Your task to perform on an android device: turn off picture-in-picture Image 0: 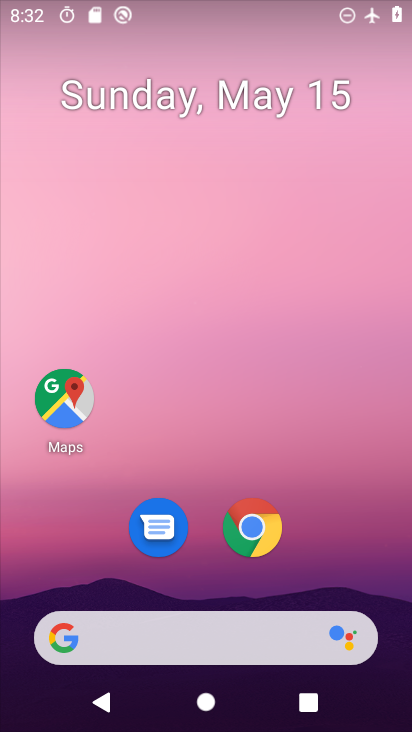
Step 0: click (250, 535)
Your task to perform on an android device: turn off picture-in-picture Image 1: 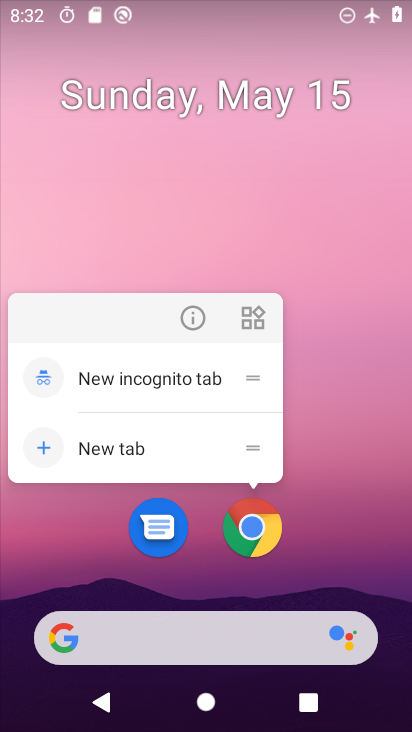
Step 1: click (194, 319)
Your task to perform on an android device: turn off picture-in-picture Image 2: 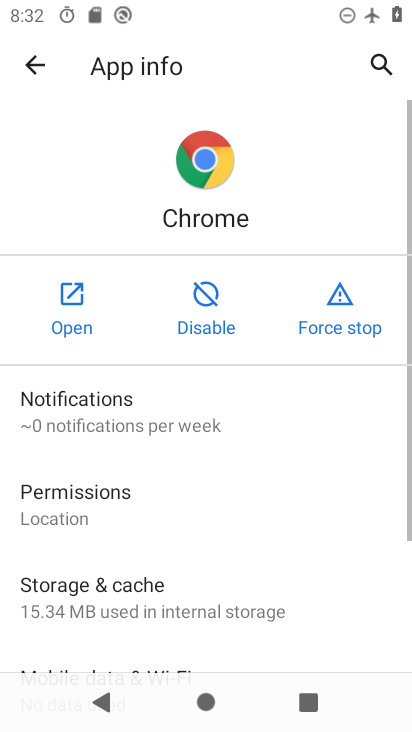
Step 2: drag from (171, 614) to (195, 180)
Your task to perform on an android device: turn off picture-in-picture Image 3: 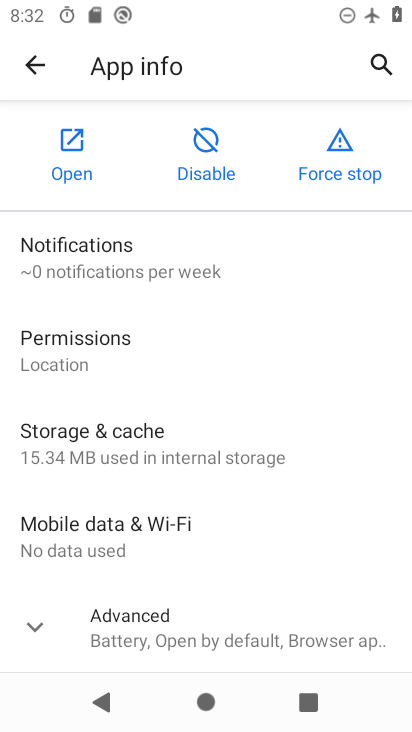
Step 3: drag from (173, 601) to (198, 364)
Your task to perform on an android device: turn off picture-in-picture Image 4: 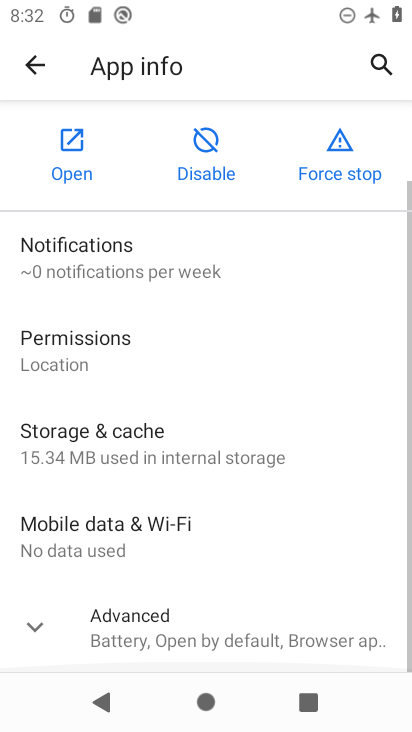
Step 4: click (133, 654)
Your task to perform on an android device: turn off picture-in-picture Image 5: 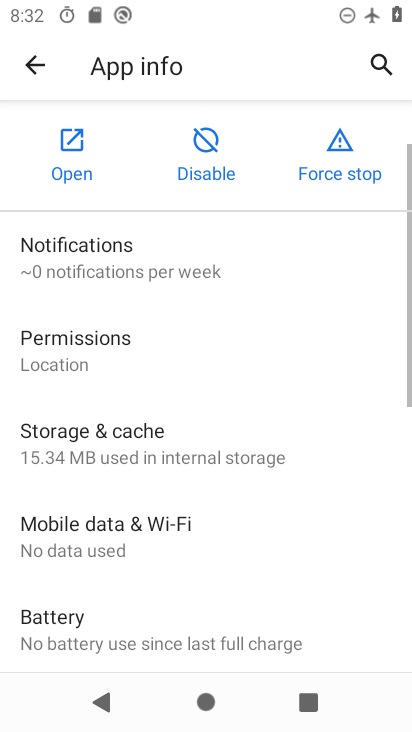
Step 5: drag from (137, 590) to (152, 268)
Your task to perform on an android device: turn off picture-in-picture Image 6: 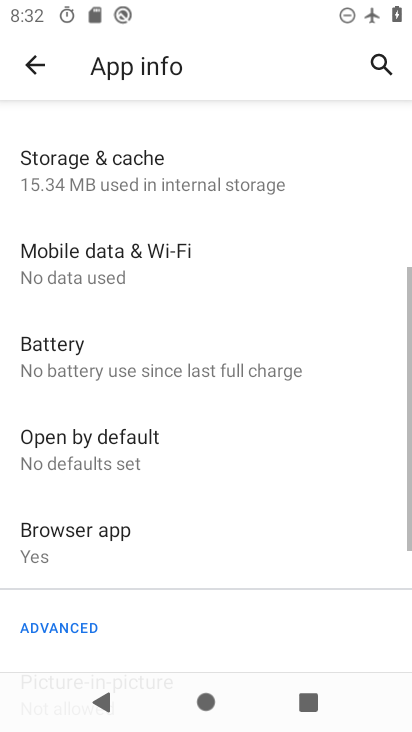
Step 6: drag from (192, 544) to (239, 225)
Your task to perform on an android device: turn off picture-in-picture Image 7: 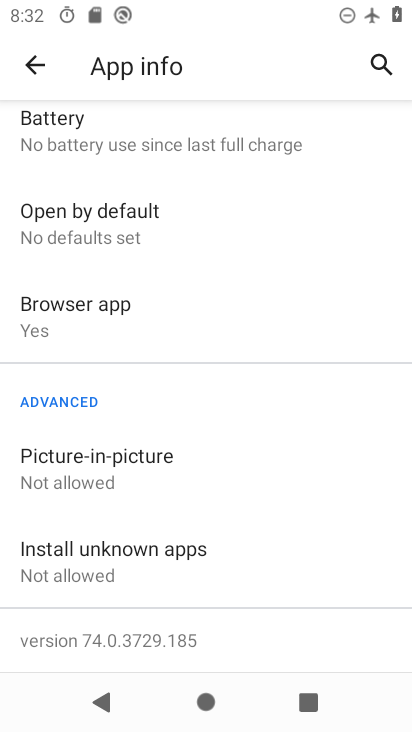
Step 7: click (121, 457)
Your task to perform on an android device: turn off picture-in-picture Image 8: 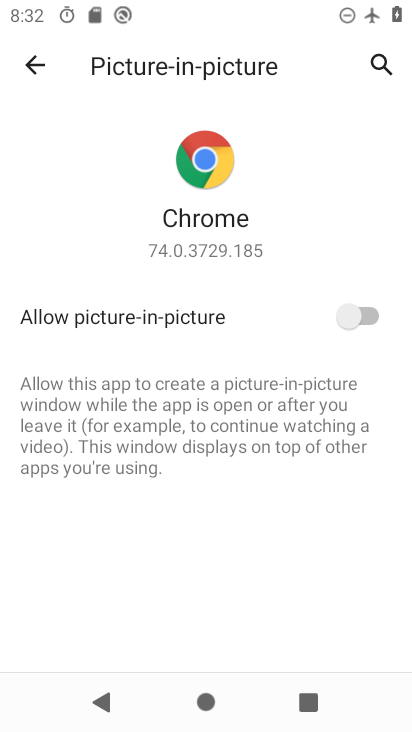
Step 8: task complete